Your task to perform on an android device: Clear all items from cart on ebay. Add rayovac triple a to the cart on ebay, then select checkout. Image 0: 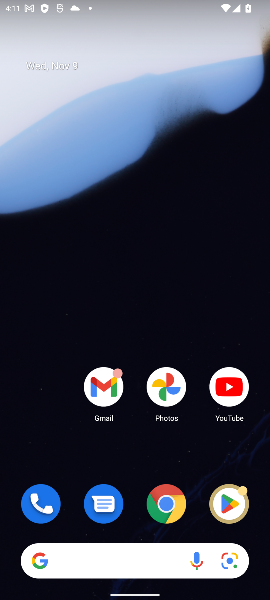
Step 0: click (118, 551)
Your task to perform on an android device: Clear all items from cart on ebay. Add rayovac triple a to the cart on ebay, then select checkout. Image 1: 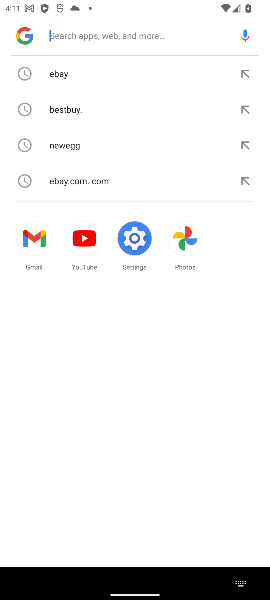
Step 1: click (56, 75)
Your task to perform on an android device: Clear all items from cart on ebay. Add rayovac triple a to the cart on ebay, then select checkout. Image 2: 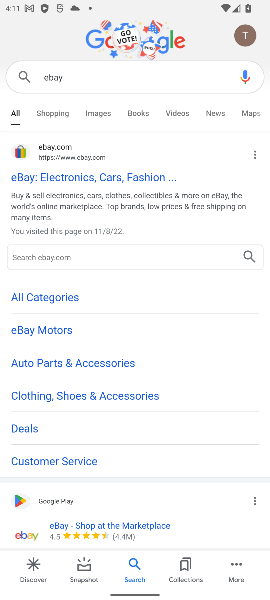
Step 2: click (48, 179)
Your task to perform on an android device: Clear all items from cart on ebay. Add rayovac triple a to the cart on ebay, then select checkout. Image 3: 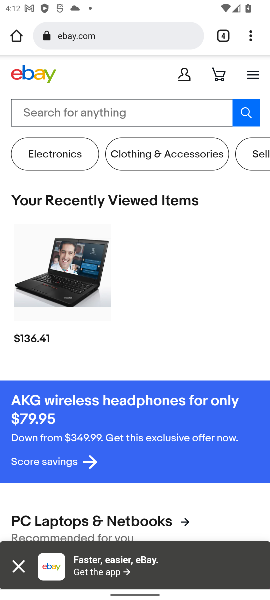
Step 3: click (214, 76)
Your task to perform on an android device: Clear all items from cart on ebay. Add rayovac triple a to the cart on ebay, then select checkout. Image 4: 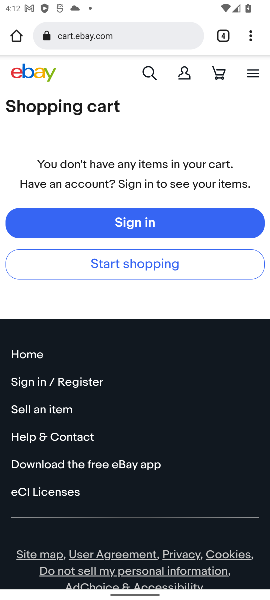
Step 4: task complete